Your task to perform on an android device: See recent photos Image 0: 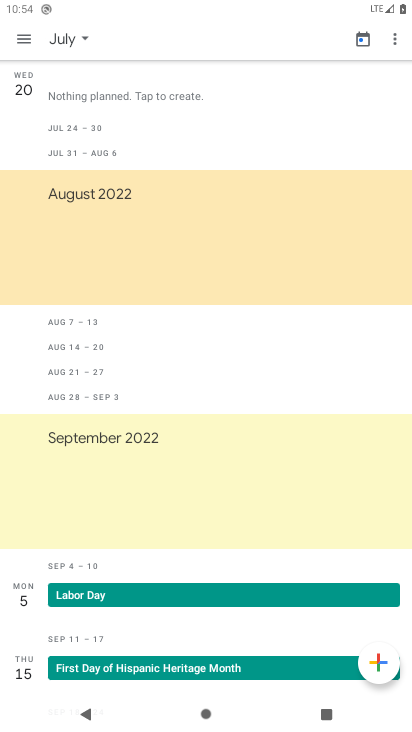
Step 0: press home button
Your task to perform on an android device: See recent photos Image 1: 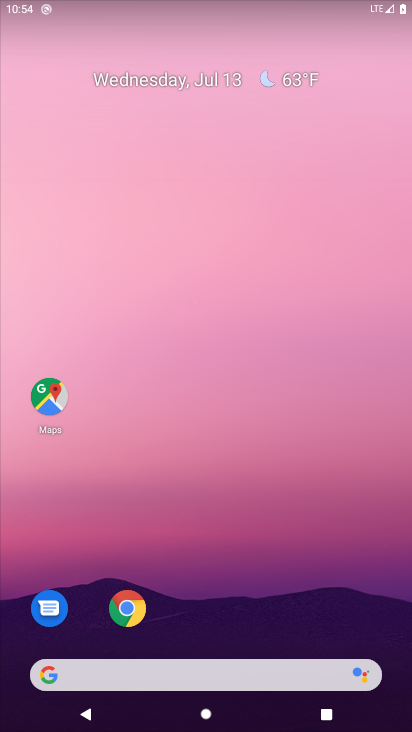
Step 1: drag from (310, 570) to (328, 67)
Your task to perform on an android device: See recent photos Image 2: 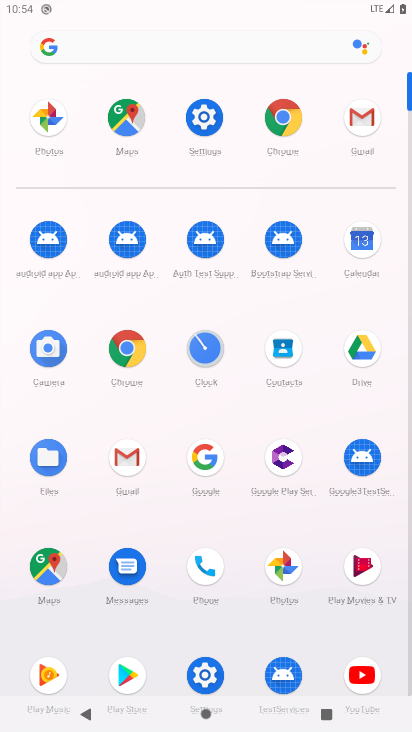
Step 2: click (293, 563)
Your task to perform on an android device: See recent photos Image 3: 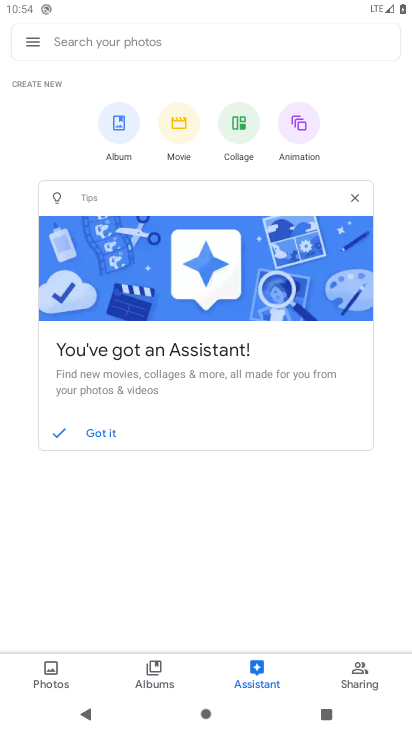
Step 3: click (51, 667)
Your task to perform on an android device: See recent photos Image 4: 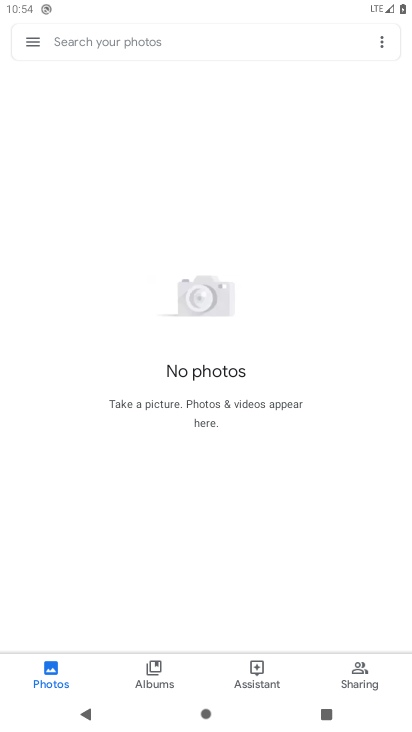
Step 4: task complete